Your task to perform on an android device: Go to network settings Image 0: 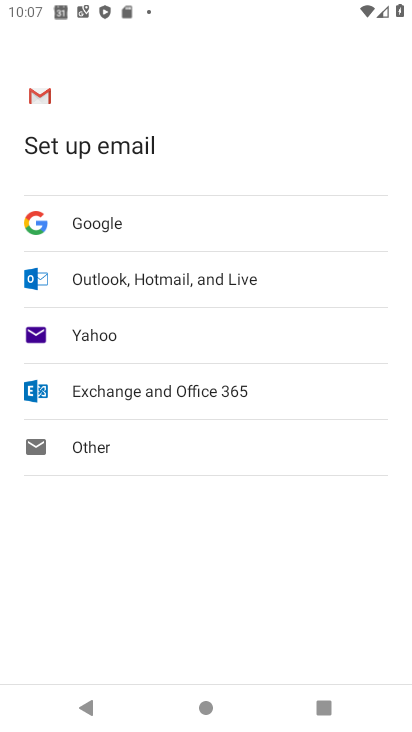
Step 0: press home button
Your task to perform on an android device: Go to network settings Image 1: 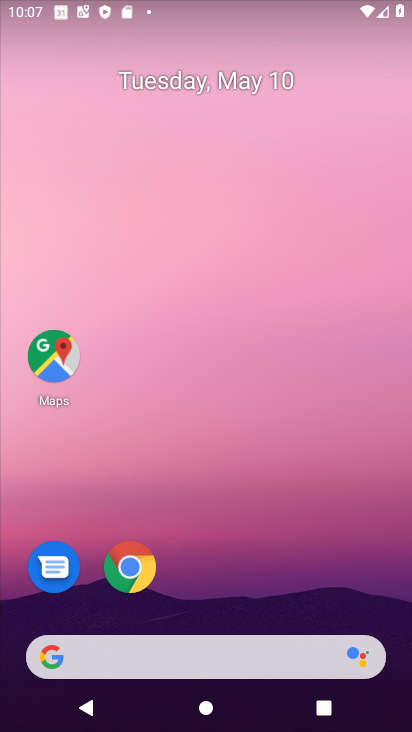
Step 1: drag from (14, 682) to (291, 186)
Your task to perform on an android device: Go to network settings Image 2: 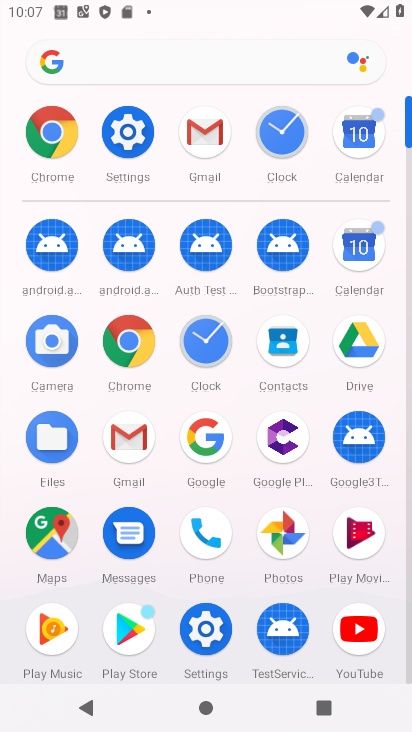
Step 2: click (108, 130)
Your task to perform on an android device: Go to network settings Image 3: 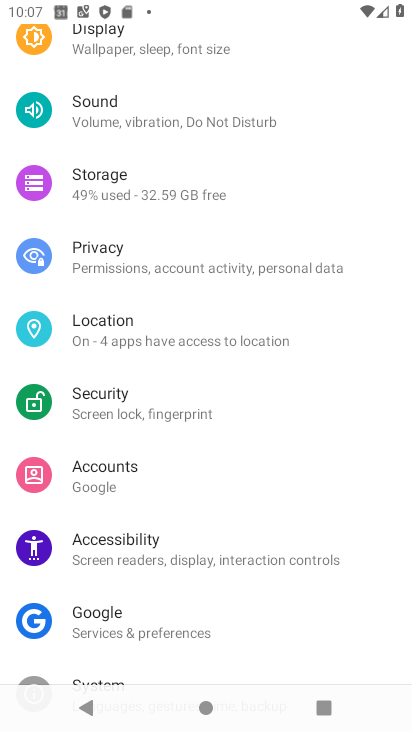
Step 3: drag from (139, 92) to (108, 594)
Your task to perform on an android device: Go to network settings Image 4: 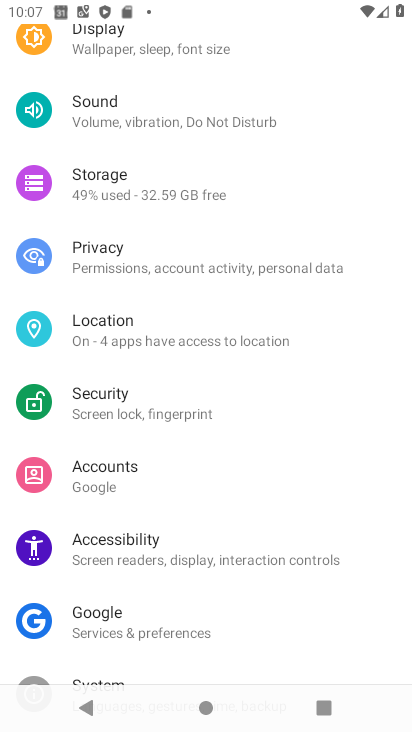
Step 4: drag from (186, 87) to (123, 608)
Your task to perform on an android device: Go to network settings Image 5: 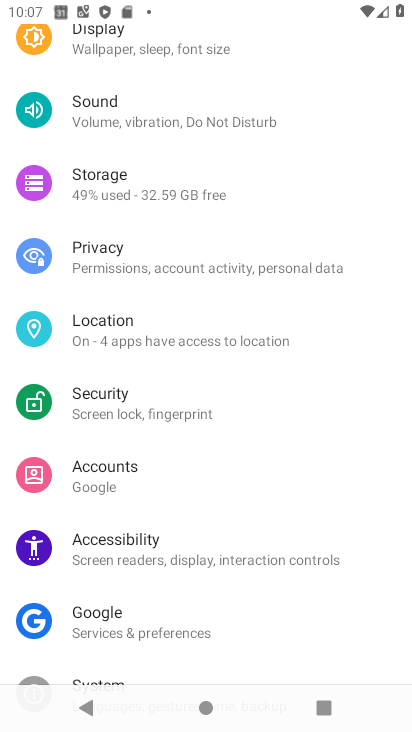
Step 5: drag from (96, 82) to (59, 620)
Your task to perform on an android device: Go to network settings Image 6: 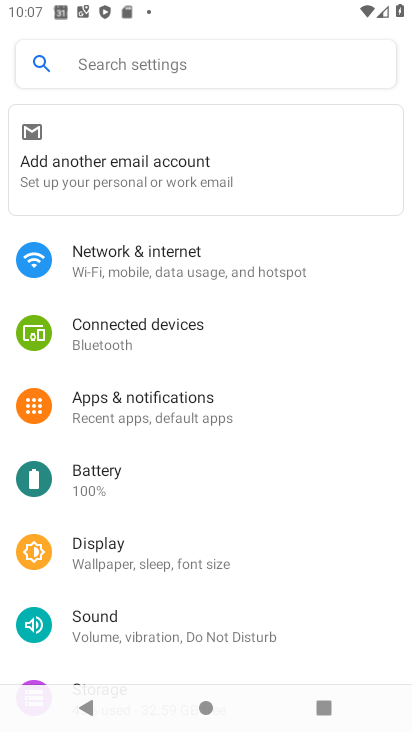
Step 6: click (66, 252)
Your task to perform on an android device: Go to network settings Image 7: 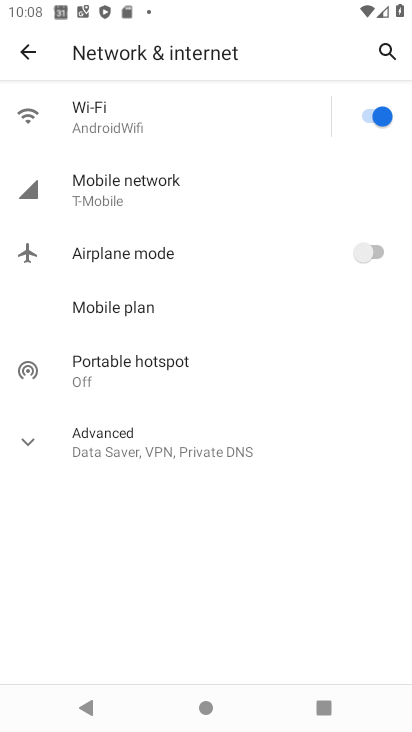
Step 7: click (229, 174)
Your task to perform on an android device: Go to network settings Image 8: 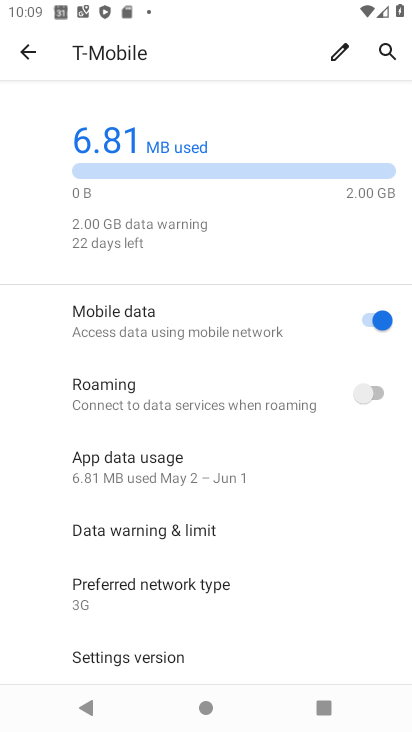
Step 8: task complete